Your task to perform on an android device: choose inbox layout in the gmail app Image 0: 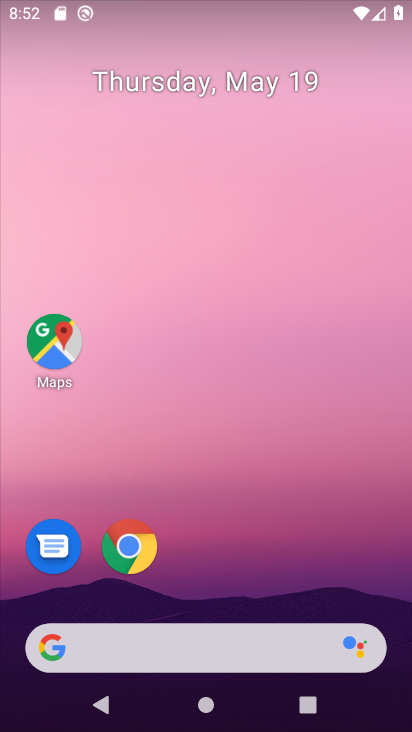
Step 0: drag from (229, 194) to (234, 154)
Your task to perform on an android device: choose inbox layout in the gmail app Image 1: 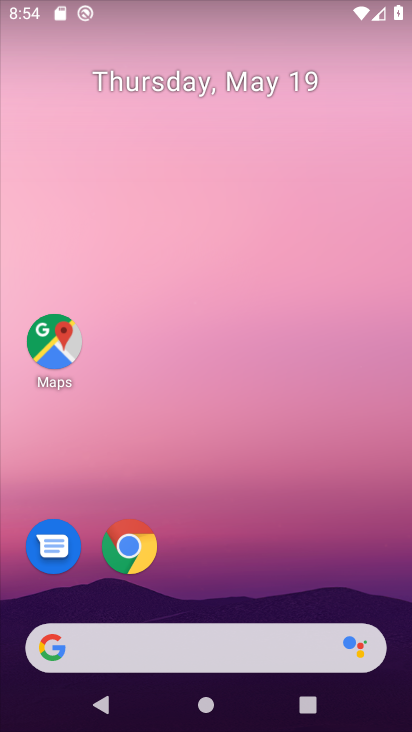
Step 1: drag from (278, 644) to (151, 94)
Your task to perform on an android device: choose inbox layout in the gmail app Image 2: 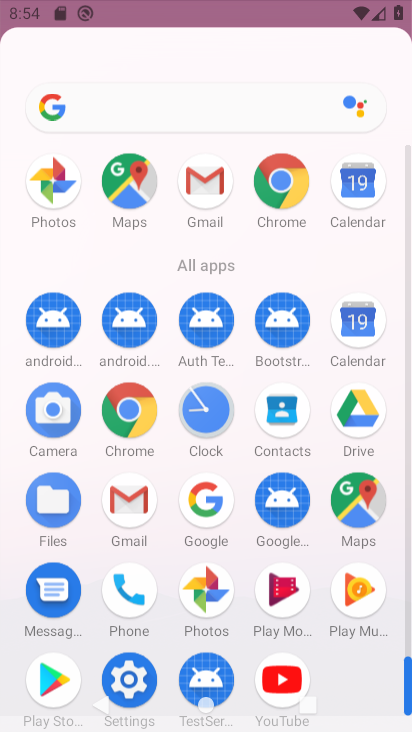
Step 2: drag from (228, 364) to (202, 57)
Your task to perform on an android device: choose inbox layout in the gmail app Image 3: 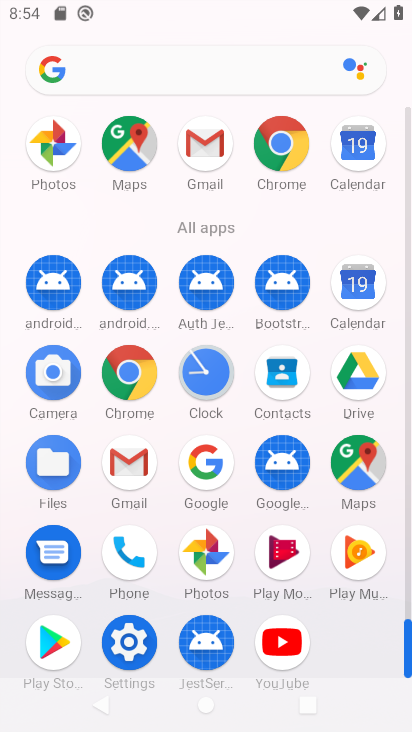
Step 3: click (121, 458)
Your task to perform on an android device: choose inbox layout in the gmail app Image 4: 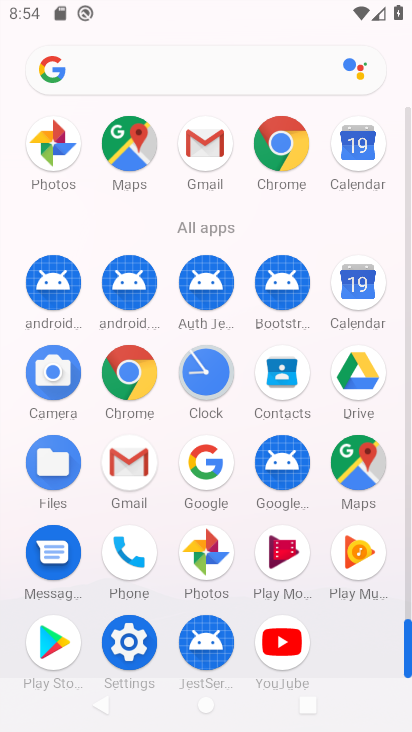
Step 4: click (125, 451)
Your task to perform on an android device: choose inbox layout in the gmail app Image 5: 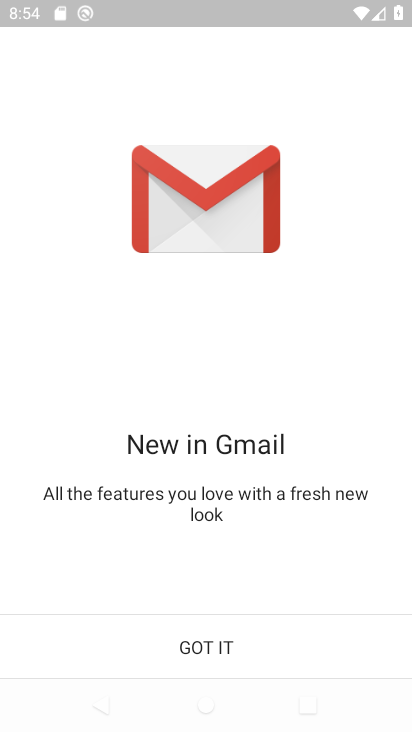
Step 5: click (215, 646)
Your task to perform on an android device: choose inbox layout in the gmail app Image 6: 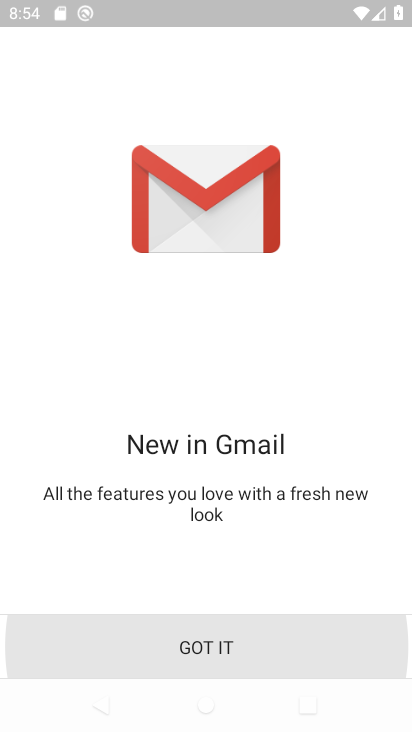
Step 6: click (215, 646)
Your task to perform on an android device: choose inbox layout in the gmail app Image 7: 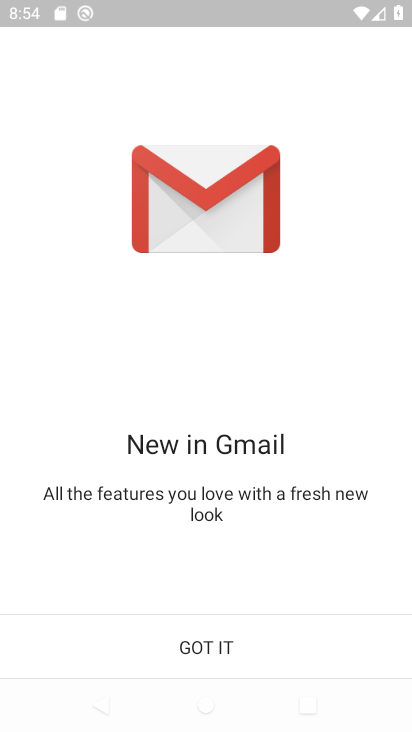
Step 7: click (215, 646)
Your task to perform on an android device: choose inbox layout in the gmail app Image 8: 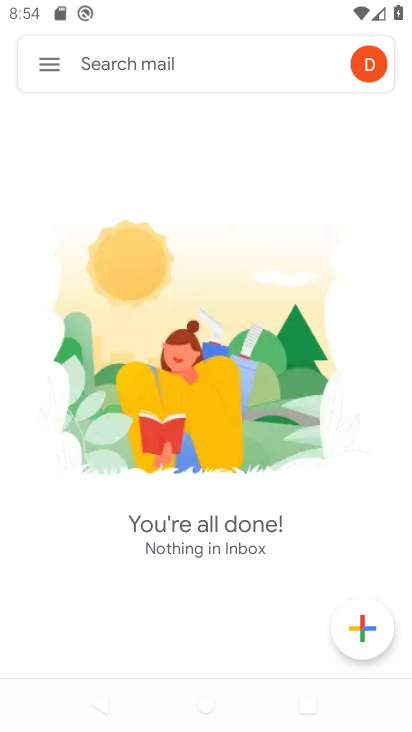
Step 8: click (43, 71)
Your task to perform on an android device: choose inbox layout in the gmail app Image 9: 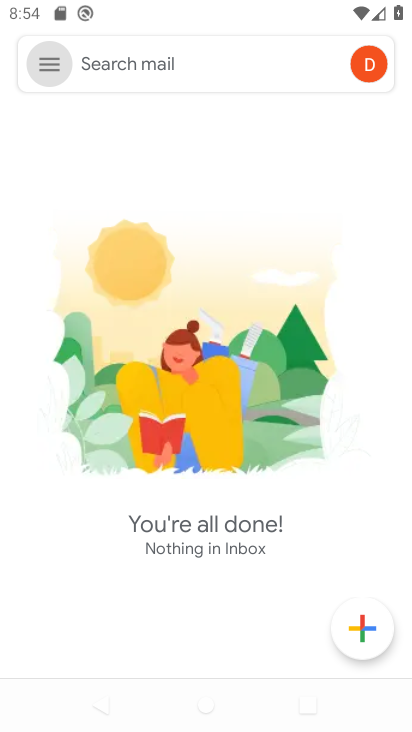
Step 9: click (44, 70)
Your task to perform on an android device: choose inbox layout in the gmail app Image 10: 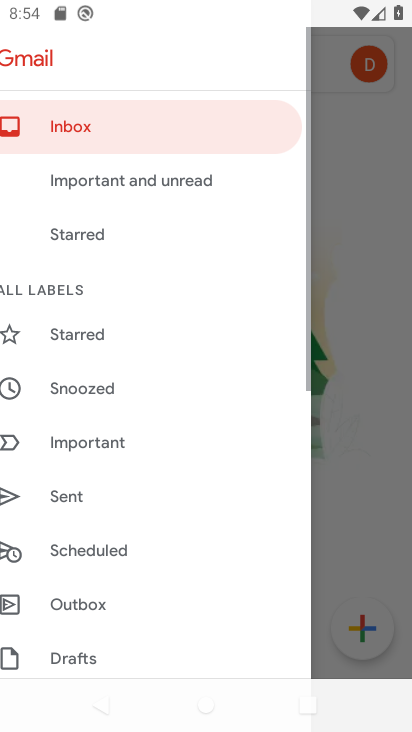
Step 10: drag from (44, 70) to (114, 588)
Your task to perform on an android device: choose inbox layout in the gmail app Image 11: 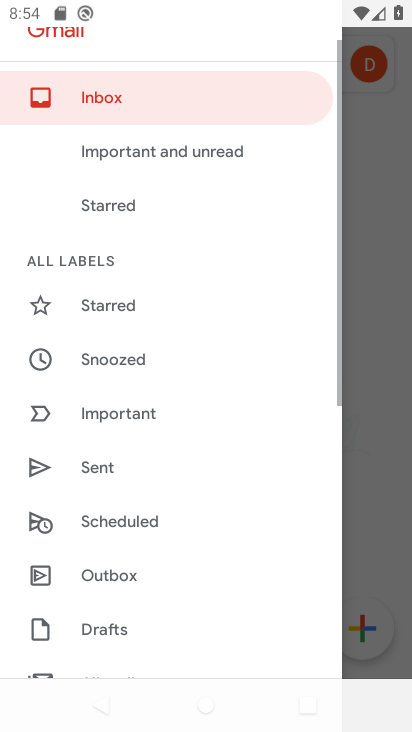
Step 11: drag from (148, 500) to (170, 128)
Your task to perform on an android device: choose inbox layout in the gmail app Image 12: 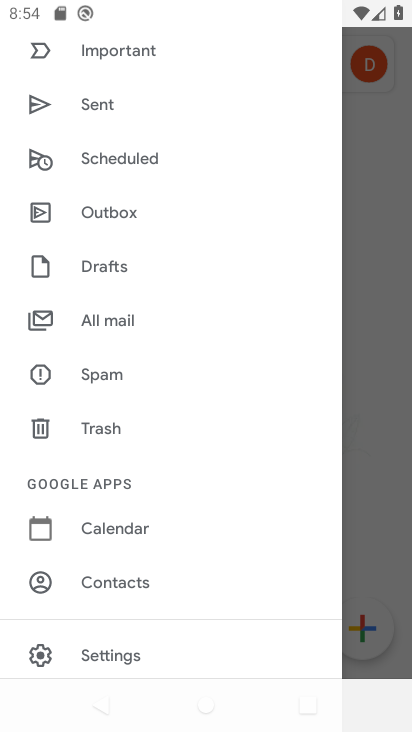
Step 12: click (111, 648)
Your task to perform on an android device: choose inbox layout in the gmail app Image 13: 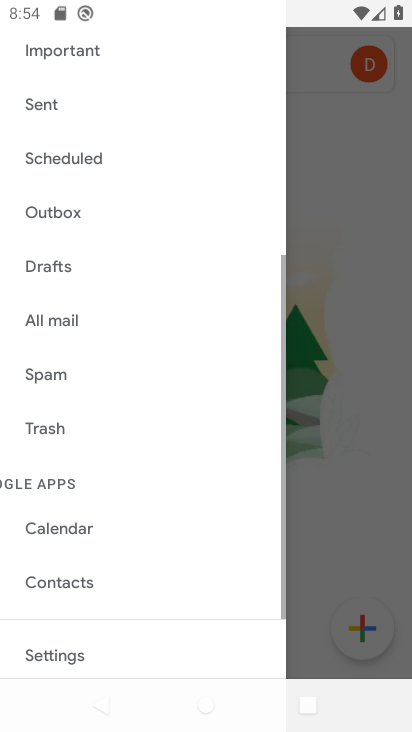
Step 13: click (111, 648)
Your task to perform on an android device: choose inbox layout in the gmail app Image 14: 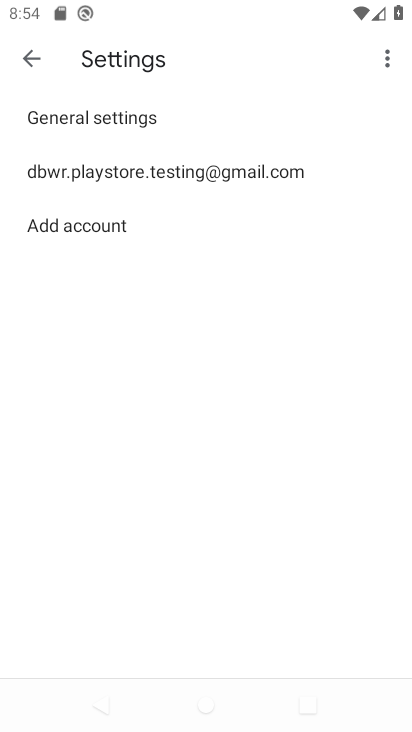
Step 14: click (36, 66)
Your task to perform on an android device: choose inbox layout in the gmail app Image 15: 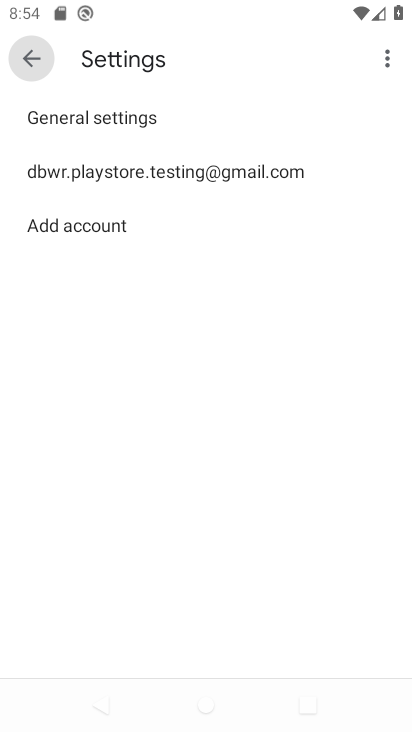
Step 15: click (35, 64)
Your task to perform on an android device: choose inbox layout in the gmail app Image 16: 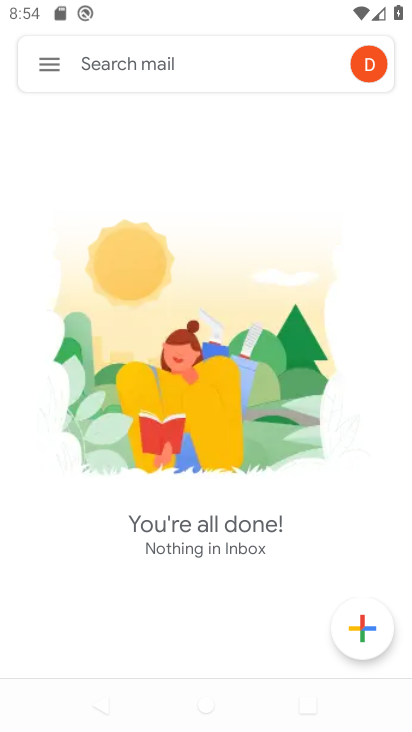
Step 16: click (49, 61)
Your task to perform on an android device: choose inbox layout in the gmail app Image 17: 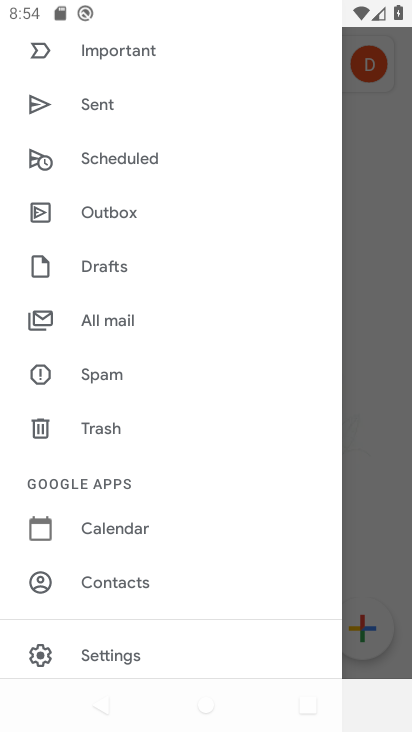
Step 17: click (101, 318)
Your task to perform on an android device: choose inbox layout in the gmail app Image 18: 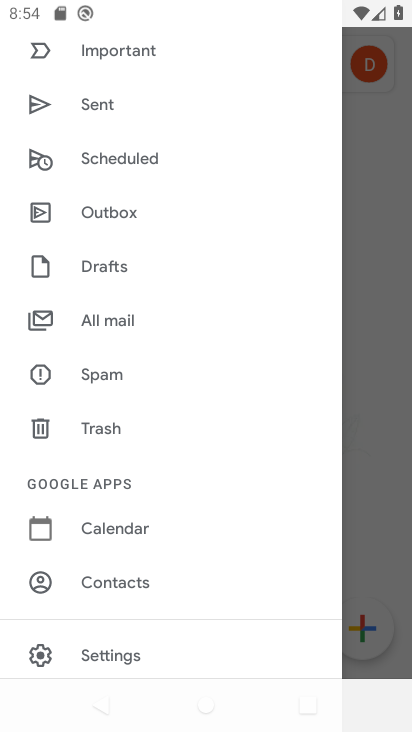
Step 18: click (103, 318)
Your task to perform on an android device: choose inbox layout in the gmail app Image 19: 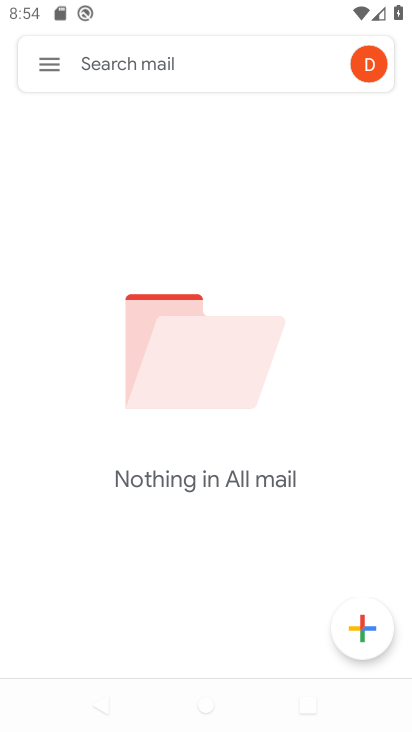
Step 19: task complete